Your task to perform on an android device: Nike Air Max 2020 shoes on Nike.com Image 0: 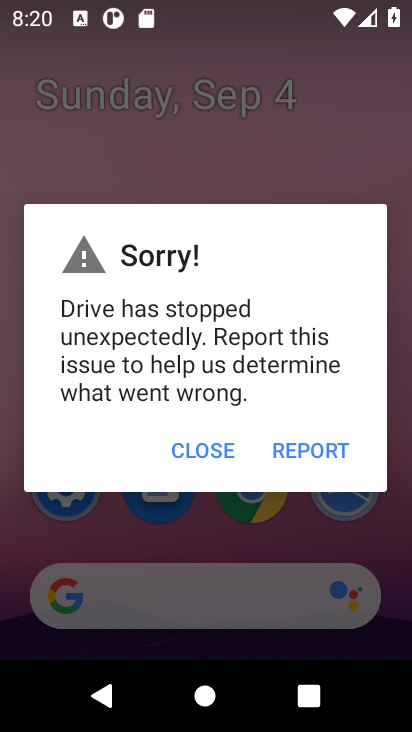
Step 0: click (193, 453)
Your task to perform on an android device: Nike Air Max 2020 shoes on Nike.com Image 1: 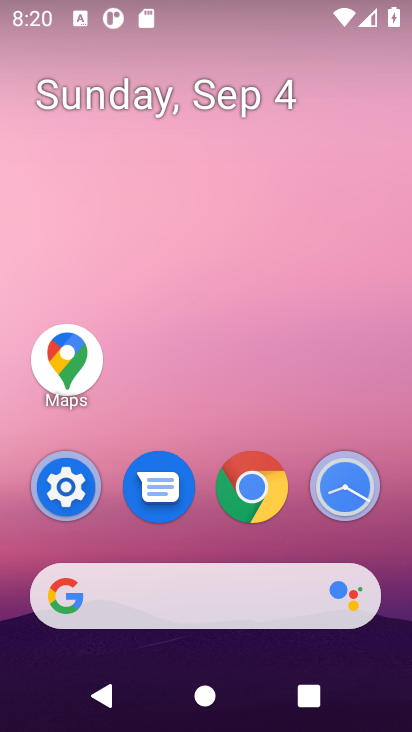
Step 1: click (208, 595)
Your task to perform on an android device: Nike Air Max 2020 shoes on Nike.com Image 2: 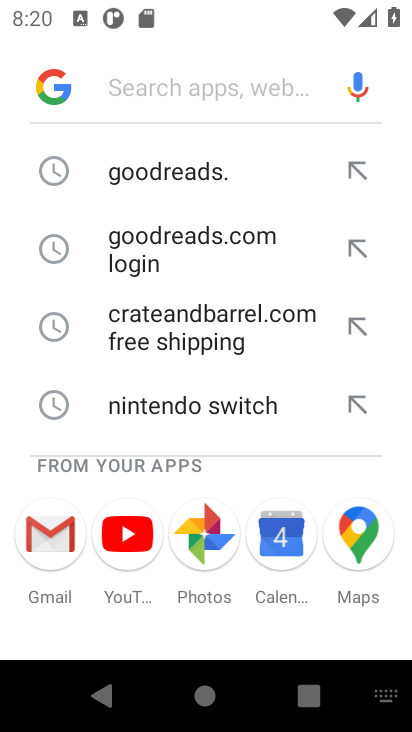
Step 2: type "nike.com"
Your task to perform on an android device: Nike Air Max 2020 shoes on Nike.com Image 3: 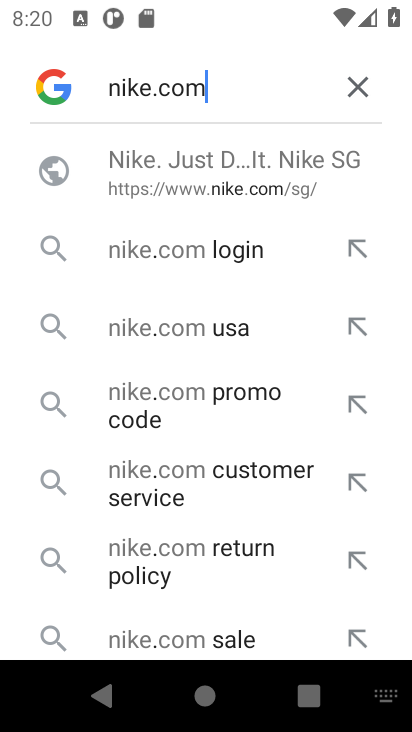
Step 3: click (221, 182)
Your task to perform on an android device: Nike Air Max 2020 shoes on Nike.com Image 4: 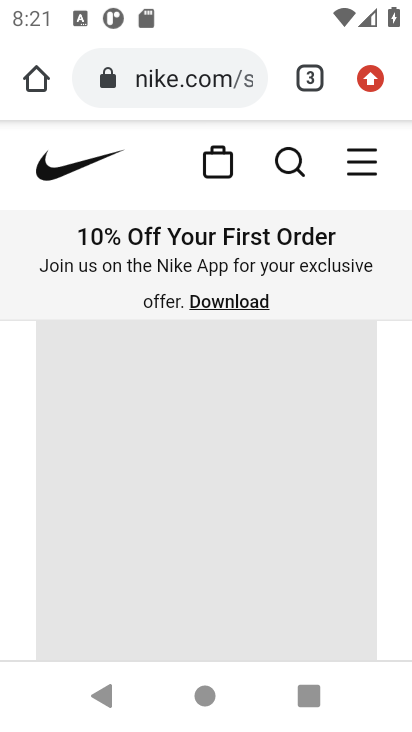
Step 4: click (285, 158)
Your task to perform on an android device: Nike Air Max 2020 shoes on Nike.com Image 5: 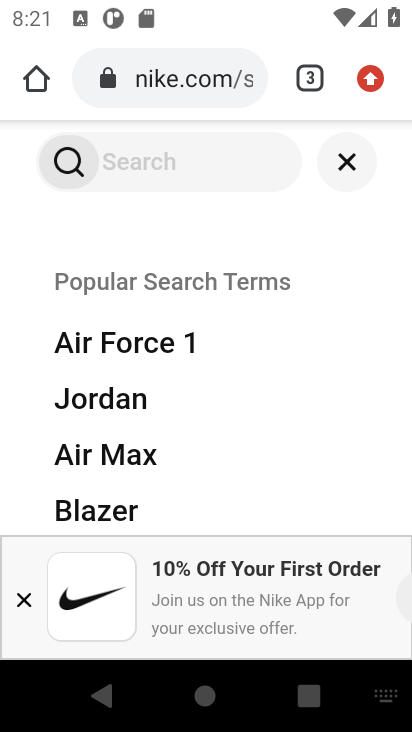
Step 5: type "Nike Air Max 2020"
Your task to perform on an android device: Nike Air Max 2020 shoes on Nike.com Image 6: 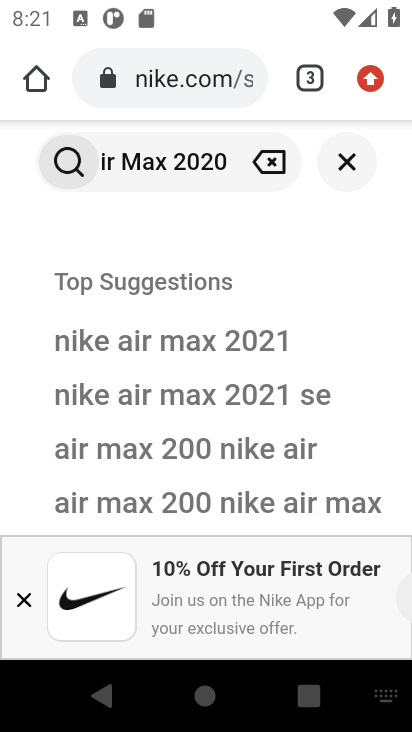
Step 6: click (230, 157)
Your task to perform on an android device: Nike Air Max 2020 shoes on Nike.com Image 7: 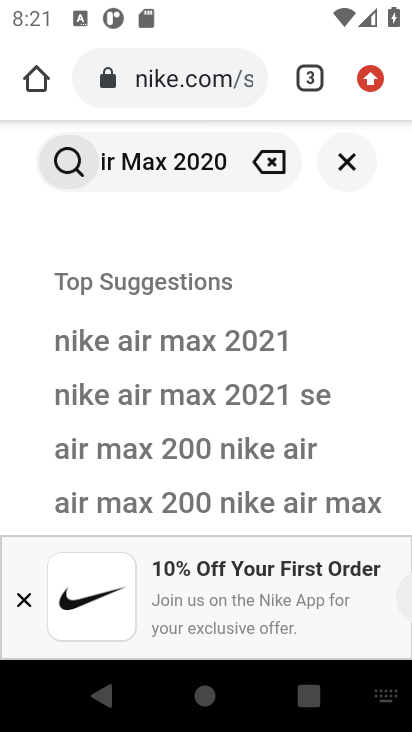
Step 7: click (230, 157)
Your task to perform on an android device: Nike Air Max 2020 shoes on Nike.com Image 8: 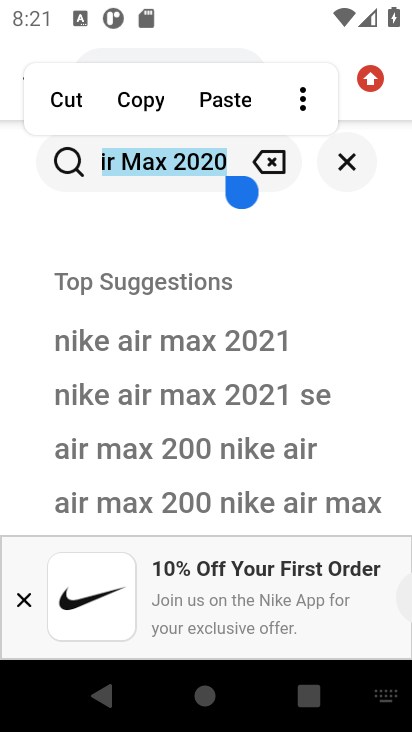
Step 8: click (73, 152)
Your task to perform on an android device: Nike Air Max 2020 shoes on Nike.com Image 9: 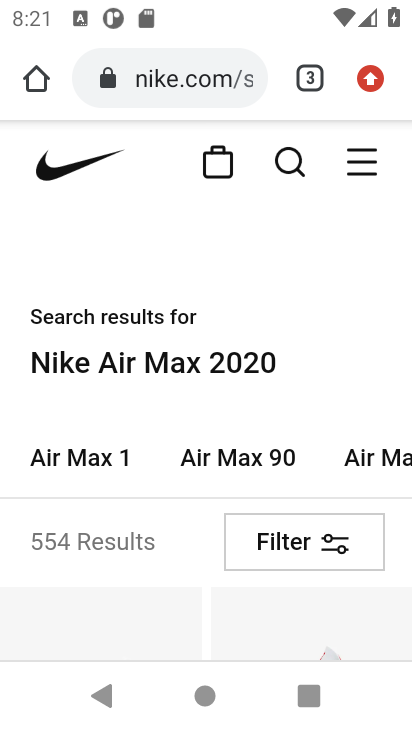
Step 9: task complete